Your task to perform on an android device: turn off improve location accuracy Image 0: 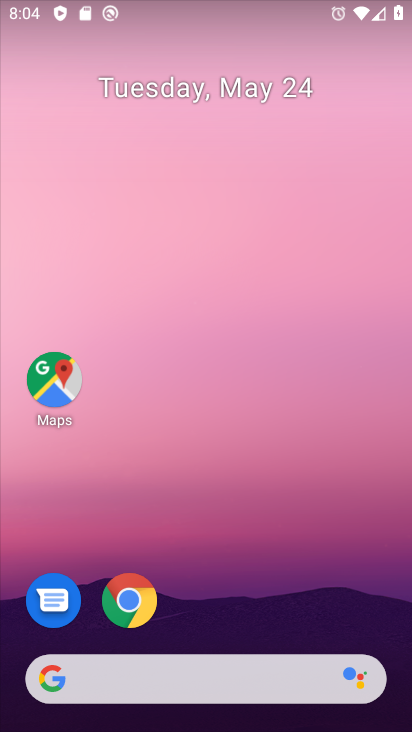
Step 0: drag from (222, 713) to (223, 94)
Your task to perform on an android device: turn off improve location accuracy Image 1: 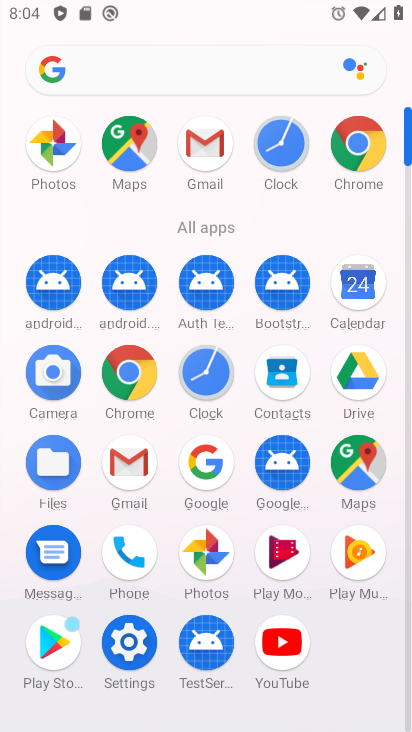
Step 1: click (129, 655)
Your task to perform on an android device: turn off improve location accuracy Image 2: 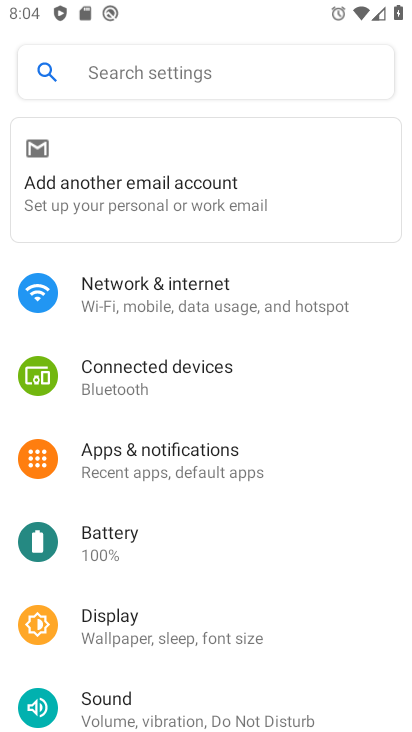
Step 2: drag from (132, 676) to (144, 327)
Your task to perform on an android device: turn off improve location accuracy Image 3: 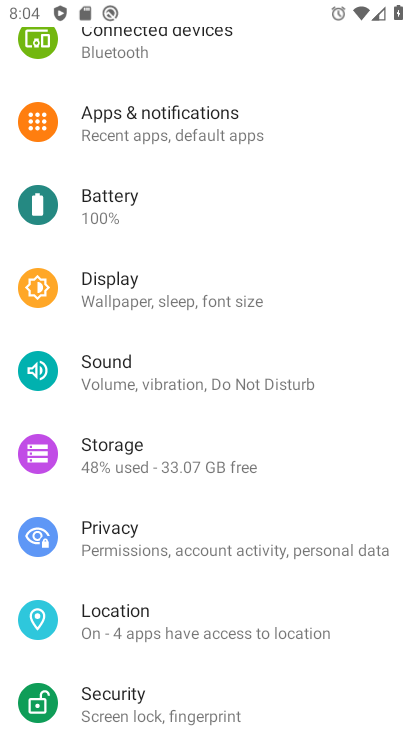
Step 3: click (137, 621)
Your task to perform on an android device: turn off improve location accuracy Image 4: 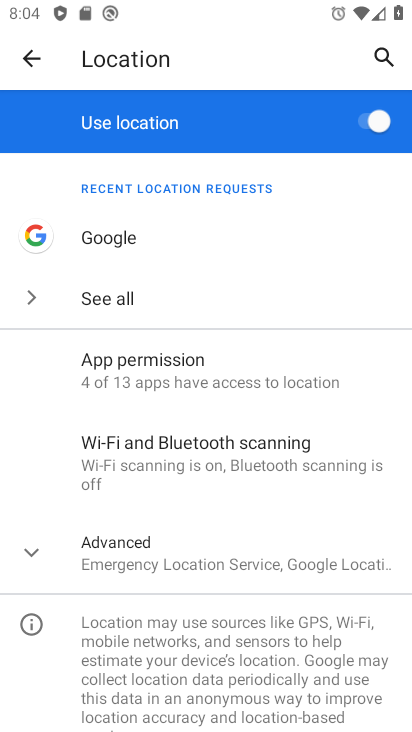
Step 4: click (122, 560)
Your task to perform on an android device: turn off improve location accuracy Image 5: 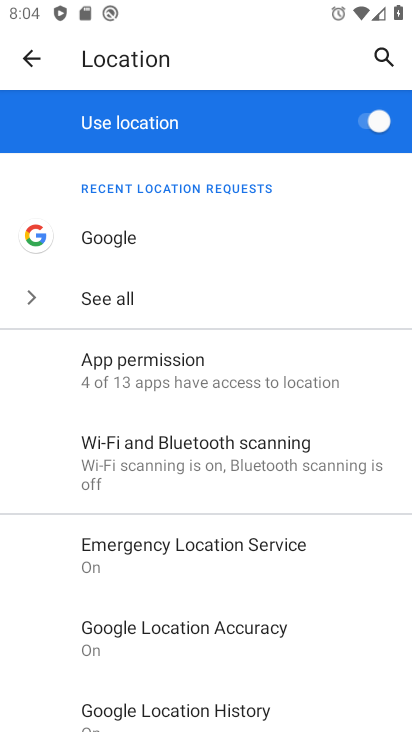
Step 5: click (180, 624)
Your task to perform on an android device: turn off improve location accuracy Image 6: 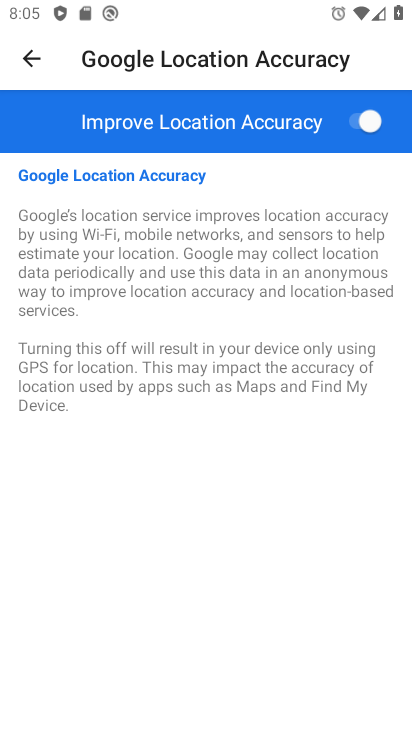
Step 6: click (352, 123)
Your task to perform on an android device: turn off improve location accuracy Image 7: 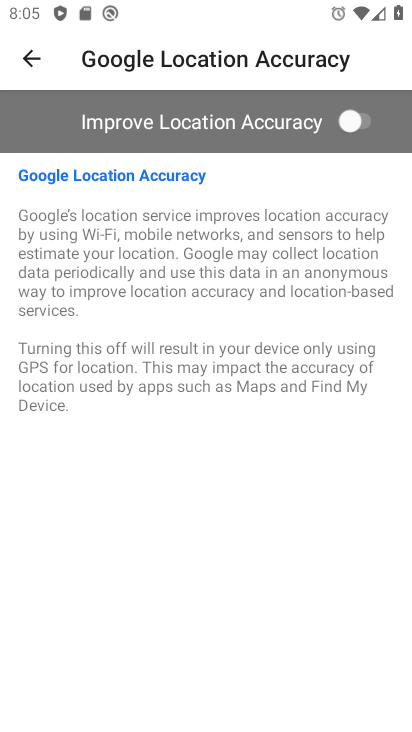
Step 7: task complete